Your task to perform on an android device: check battery use Image 0: 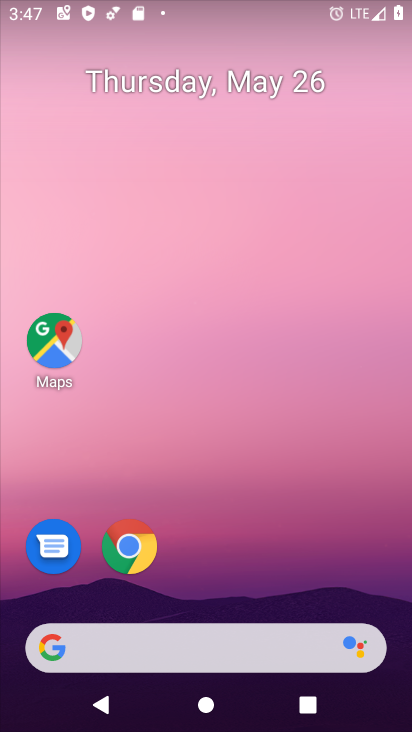
Step 0: drag from (222, 519) to (253, 53)
Your task to perform on an android device: check battery use Image 1: 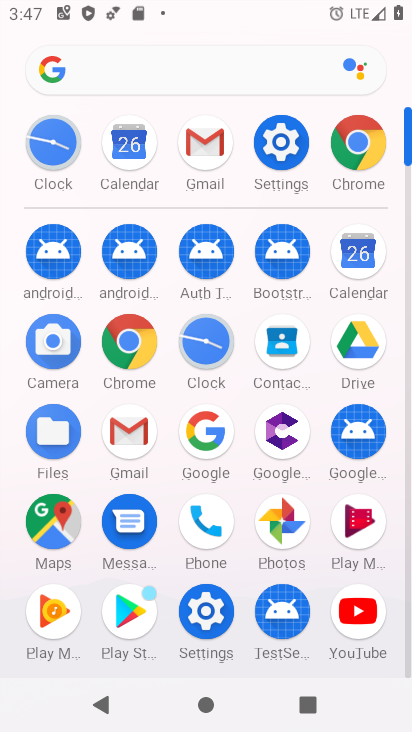
Step 1: click (279, 147)
Your task to perform on an android device: check battery use Image 2: 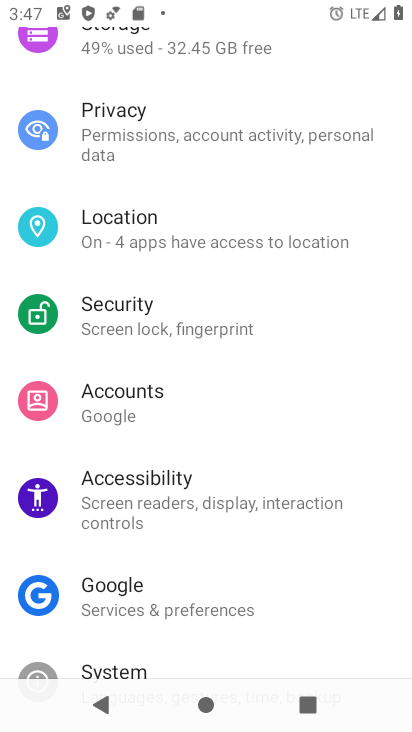
Step 2: drag from (262, 154) to (261, 354)
Your task to perform on an android device: check battery use Image 3: 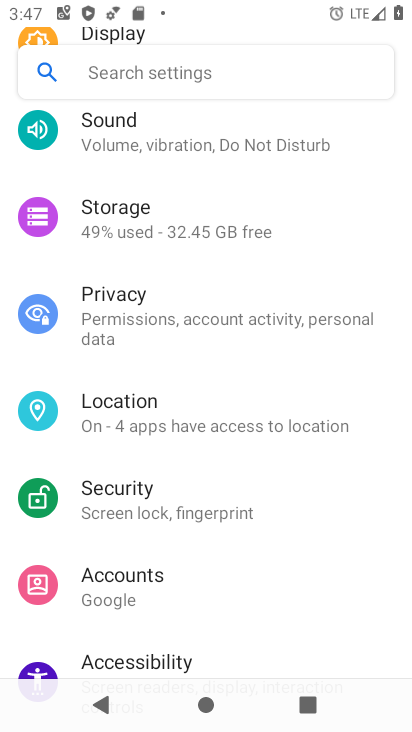
Step 3: drag from (204, 247) to (226, 555)
Your task to perform on an android device: check battery use Image 4: 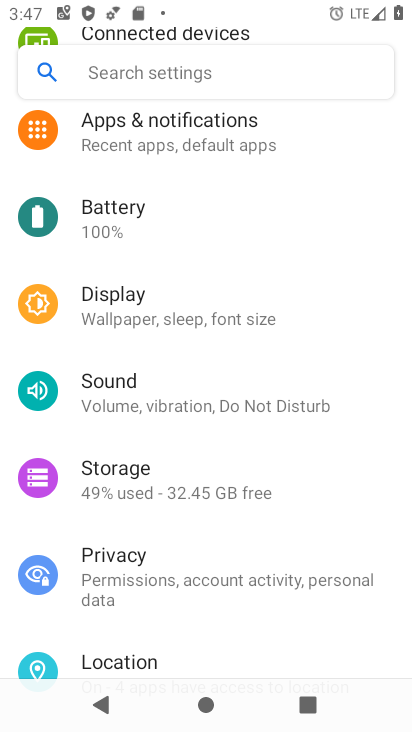
Step 4: click (135, 208)
Your task to perform on an android device: check battery use Image 5: 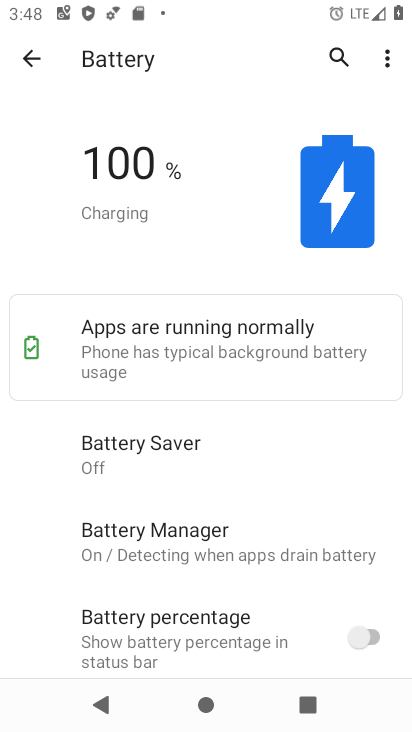
Step 5: click (384, 54)
Your task to perform on an android device: check battery use Image 6: 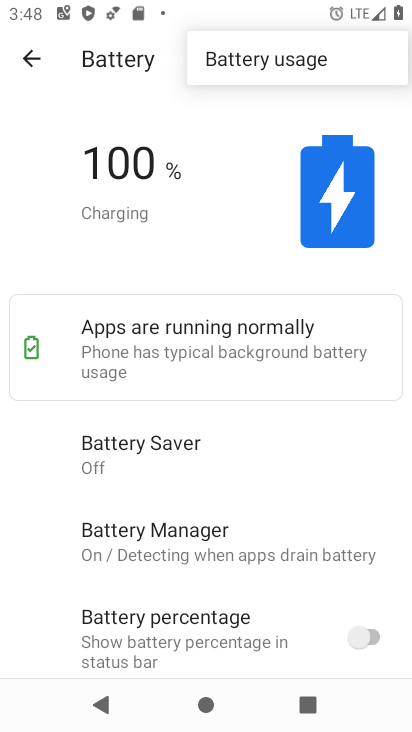
Step 6: click (280, 61)
Your task to perform on an android device: check battery use Image 7: 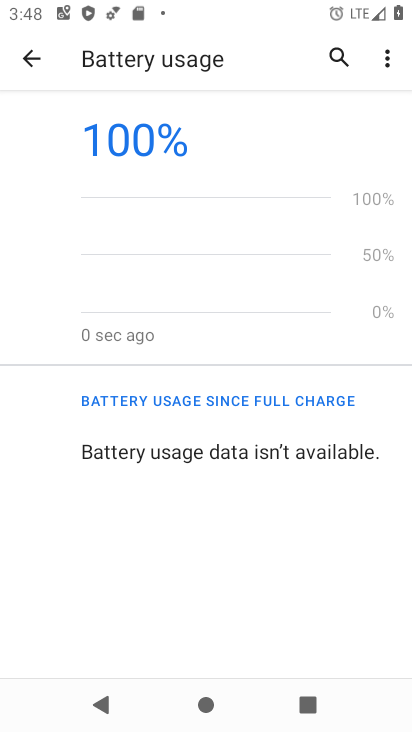
Step 7: task complete